Your task to perform on an android device: refresh tabs in the chrome app Image 0: 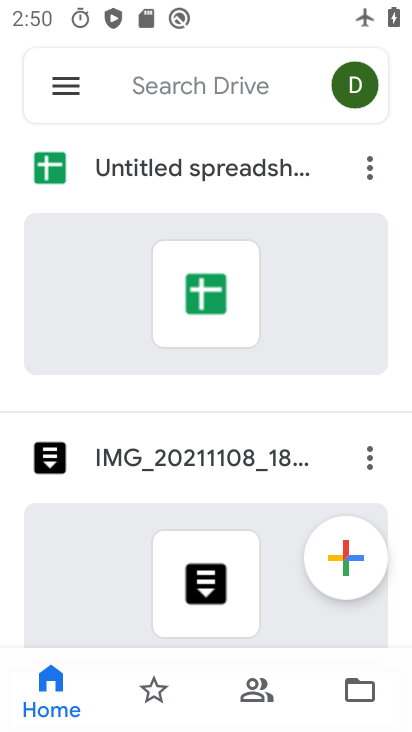
Step 0: press home button
Your task to perform on an android device: refresh tabs in the chrome app Image 1: 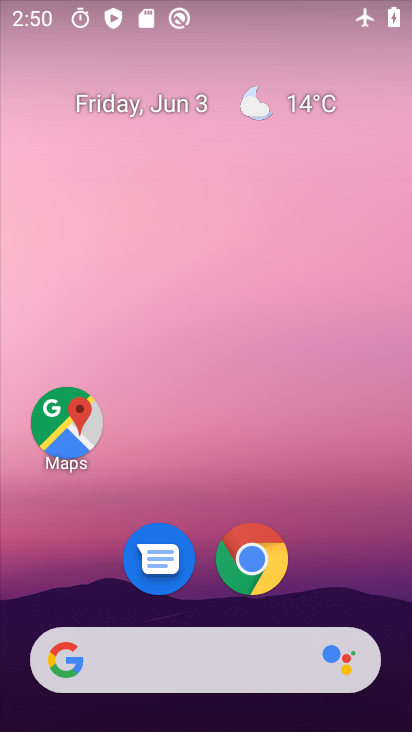
Step 1: click (244, 557)
Your task to perform on an android device: refresh tabs in the chrome app Image 2: 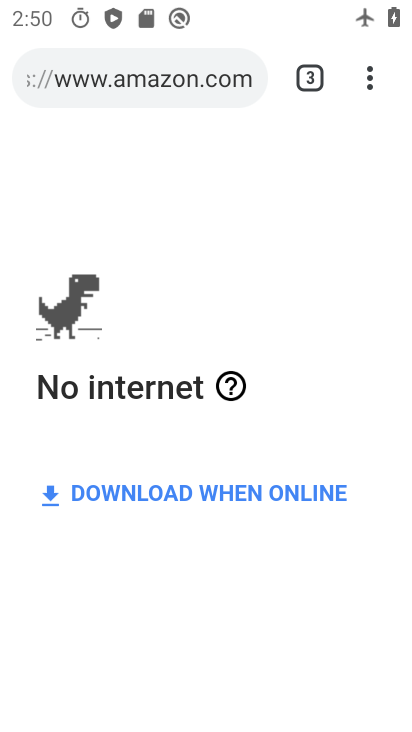
Step 2: click (366, 72)
Your task to perform on an android device: refresh tabs in the chrome app Image 3: 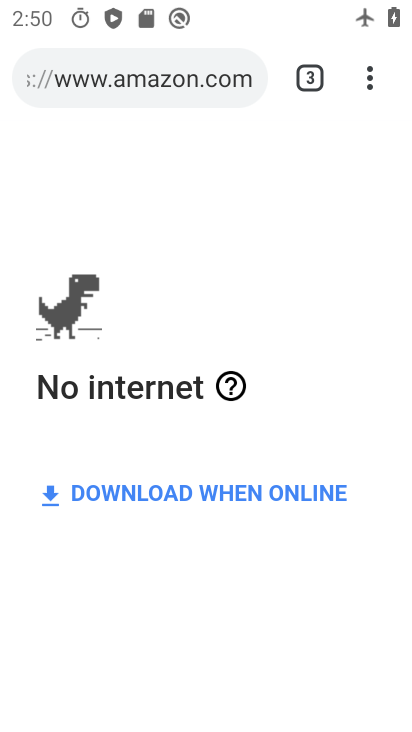
Step 3: task complete